Your task to perform on an android device: Search for sushi restaurants on Maps Image 0: 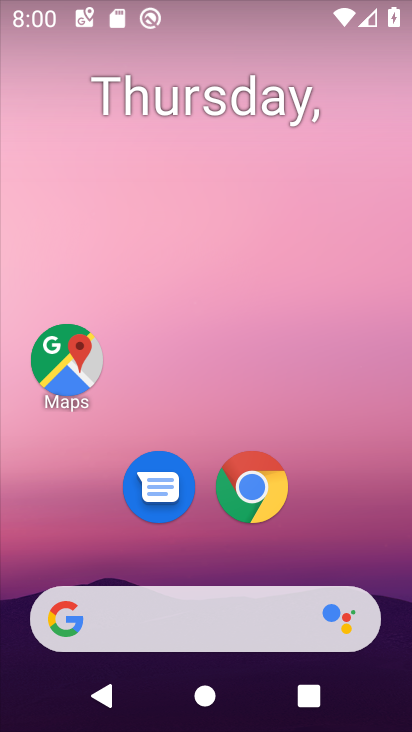
Step 0: click (72, 362)
Your task to perform on an android device: Search for sushi restaurants on Maps Image 1: 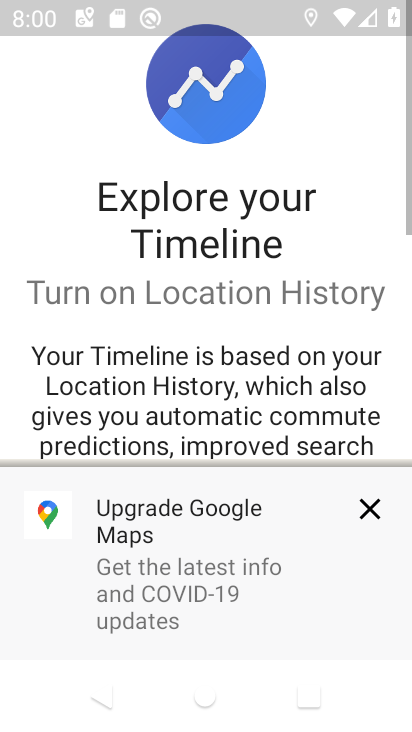
Step 1: click (389, 503)
Your task to perform on an android device: Search for sushi restaurants on Maps Image 2: 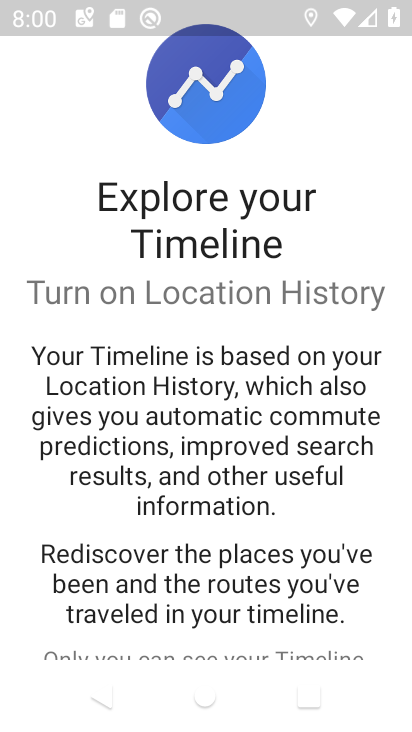
Step 2: drag from (216, 621) to (263, 166)
Your task to perform on an android device: Search for sushi restaurants on Maps Image 3: 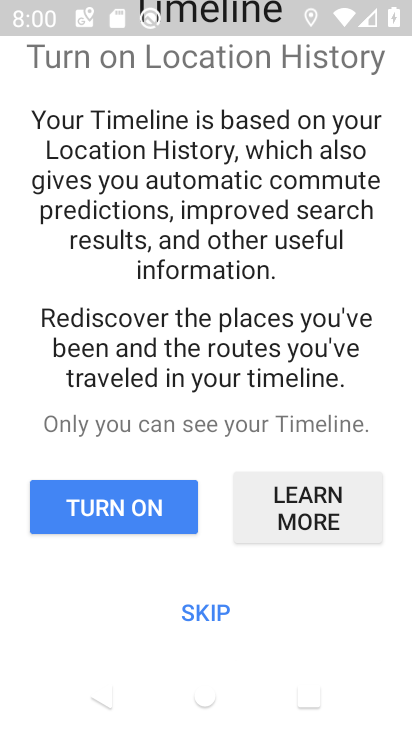
Step 3: click (218, 602)
Your task to perform on an android device: Search for sushi restaurants on Maps Image 4: 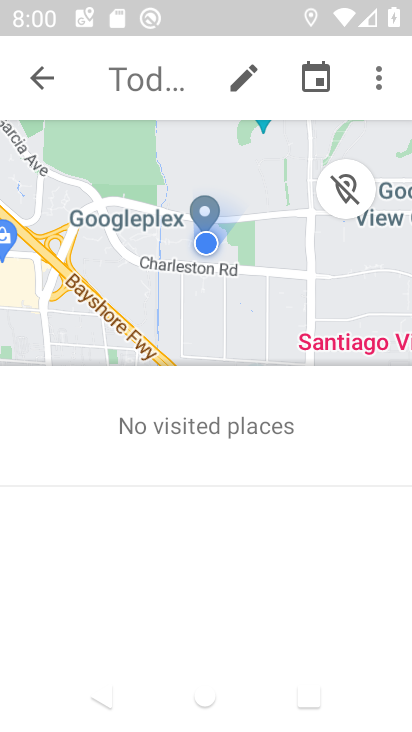
Step 4: click (45, 67)
Your task to perform on an android device: Search for sushi restaurants on Maps Image 5: 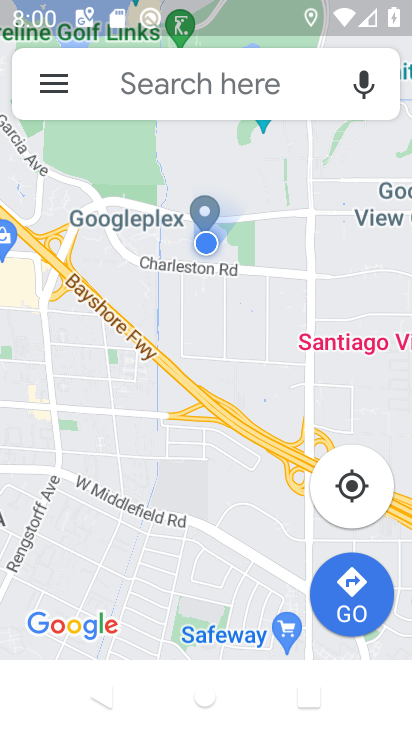
Step 5: click (169, 81)
Your task to perform on an android device: Search for sushi restaurants on Maps Image 6: 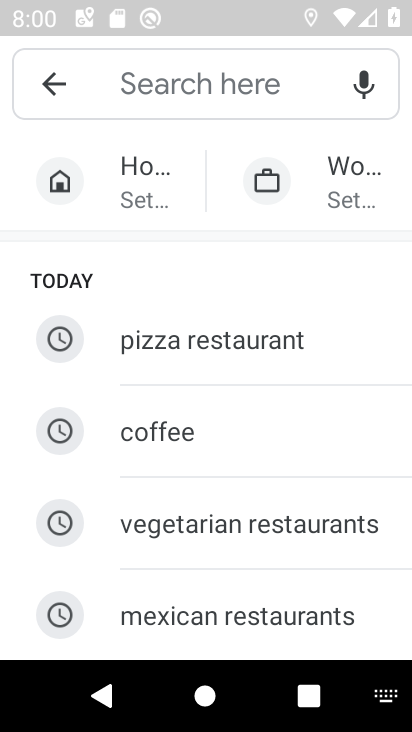
Step 6: drag from (216, 590) to (256, 248)
Your task to perform on an android device: Search for sushi restaurants on Maps Image 7: 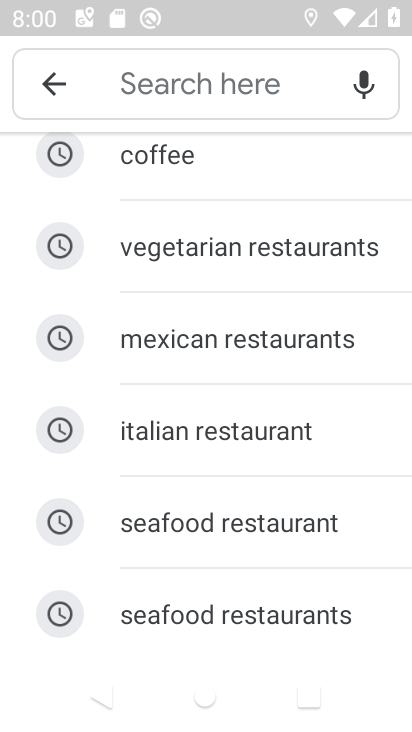
Step 7: drag from (192, 600) to (255, 219)
Your task to perform on an android device: Search for sushi restaurants on Maps Image 8: 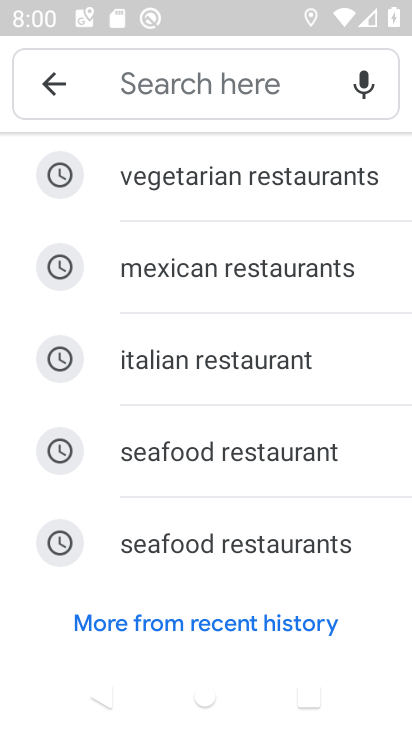
Step 8: drag from (201, 252) to (126, 723)
Your task to perform on an android device: Search for sushi restaurants on Maps Image 9: 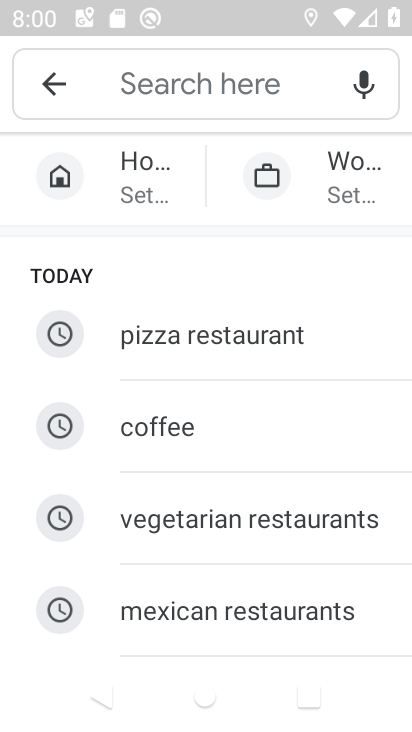
Step 9: click (155, 90)
Your task to perform on an android device: Search for sushi restaurants on Maps Image 10: 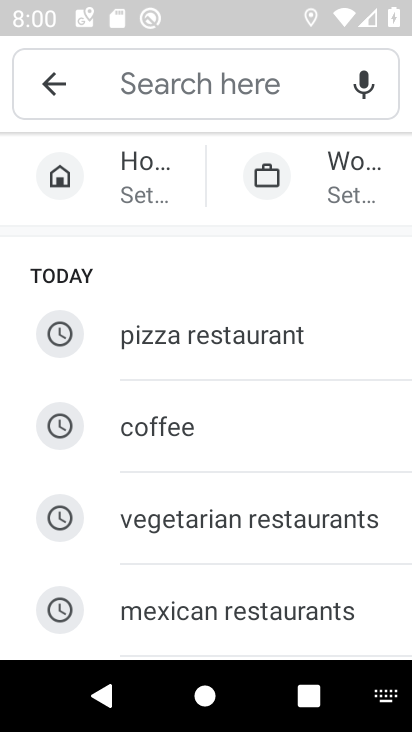
Step 10: type "sushi restraunys"
Your task to perform on an android device: Search for sushi restaurants on Maps Image 11: 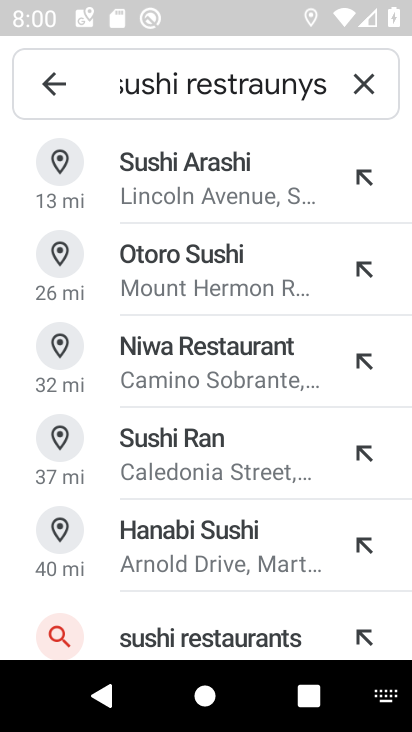
Step 11: click (249, 642)
Your task to perform on an android device: Search for sushi restaurants on Maps Image 12: 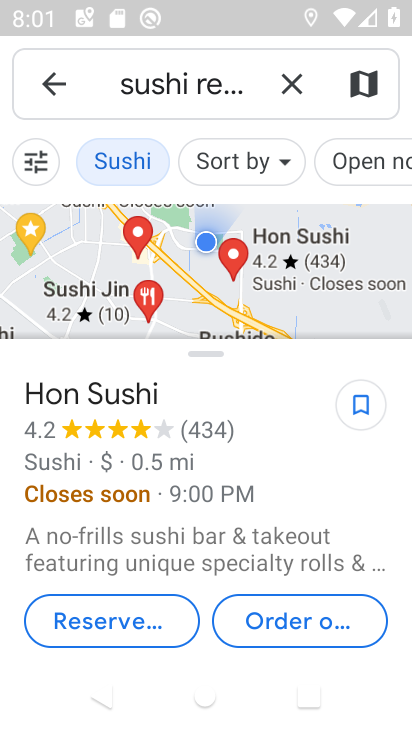
Step 12: task complete